Your task to perform on an android device: Open the calendar app, open the side menu, and click the "Day" option Image 0: 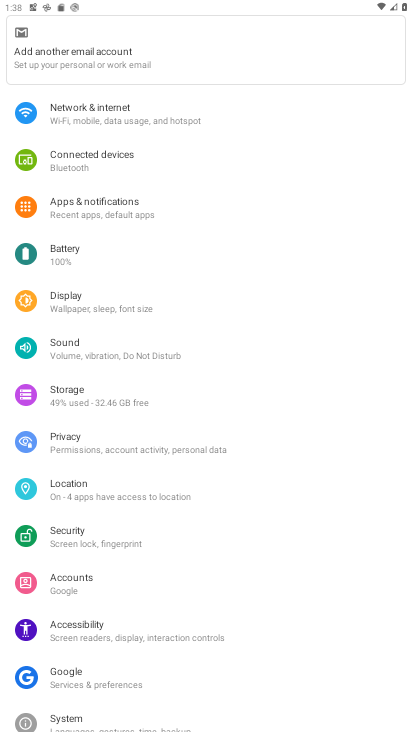
Step 0: press back button
Your task to perform on an android device: Open the calendar app, open the side menu, and click the "Day" option Image 1: 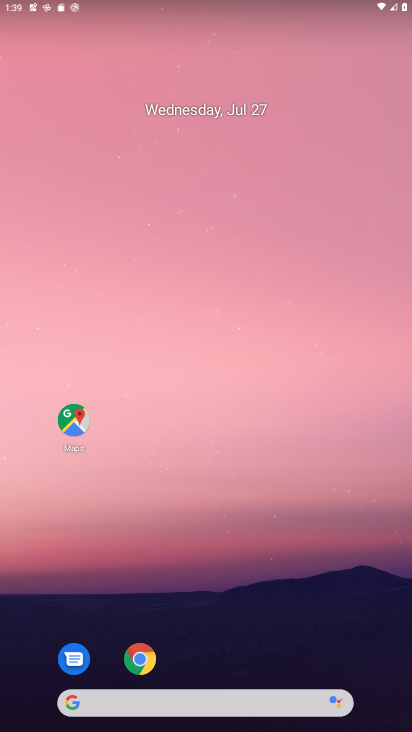
Step 1: drag from (45, 492) to (208, 113)
Your task to perform on an android device: Open the calendar app, open the side menu, and click the "Day" option Image 2: 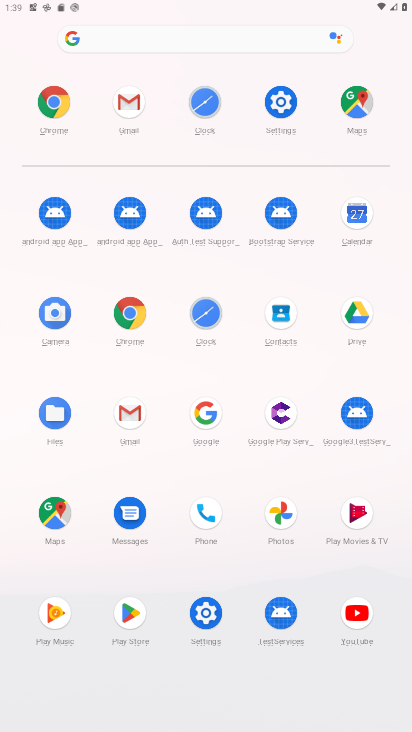
Step 2: click (362, 219)
Your task to perform on an android device: Open the calendar app, open the side menu, and click the "Day" option Image 3: 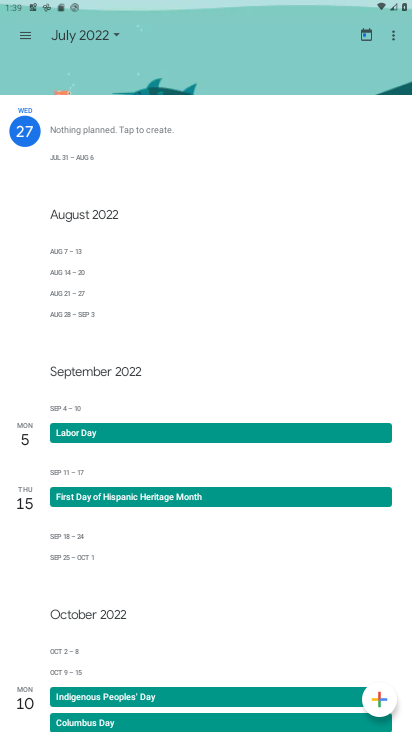
Step 3: click (17, 37)
Your task to perform on an android device: Open the calendar app, open the side menu, and click the "Day" option Image 4: 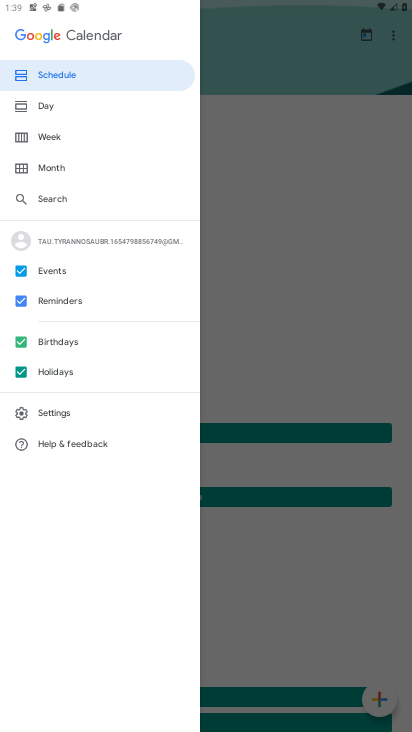
Step 4: click (48, 107)
Your task to perform on an android device: Open the calendar app, open the side menu, and click the "Day" option Image 5: 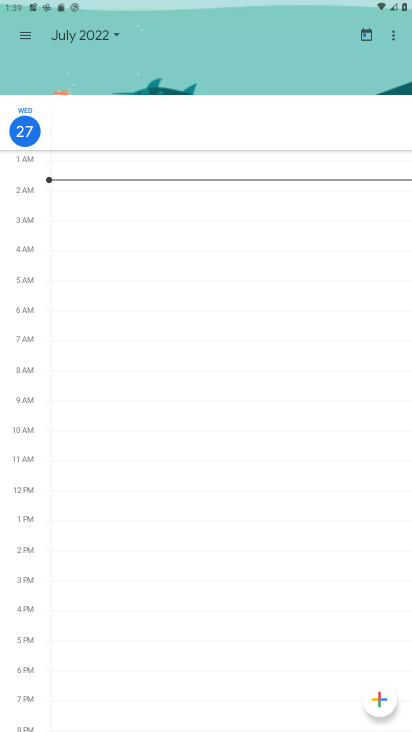
Step 5: task complete